Your task to perform on an android device: snooze an email in the gmail app Image 0: 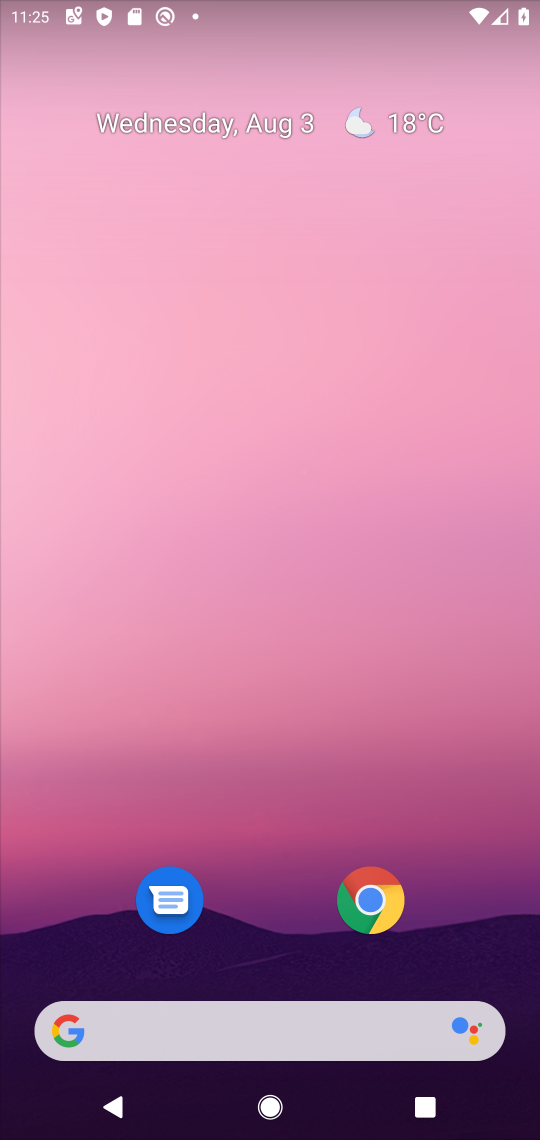
Step 0: press home button
Your task to perform on an android device: snooze an email in the gmail app Image 1: 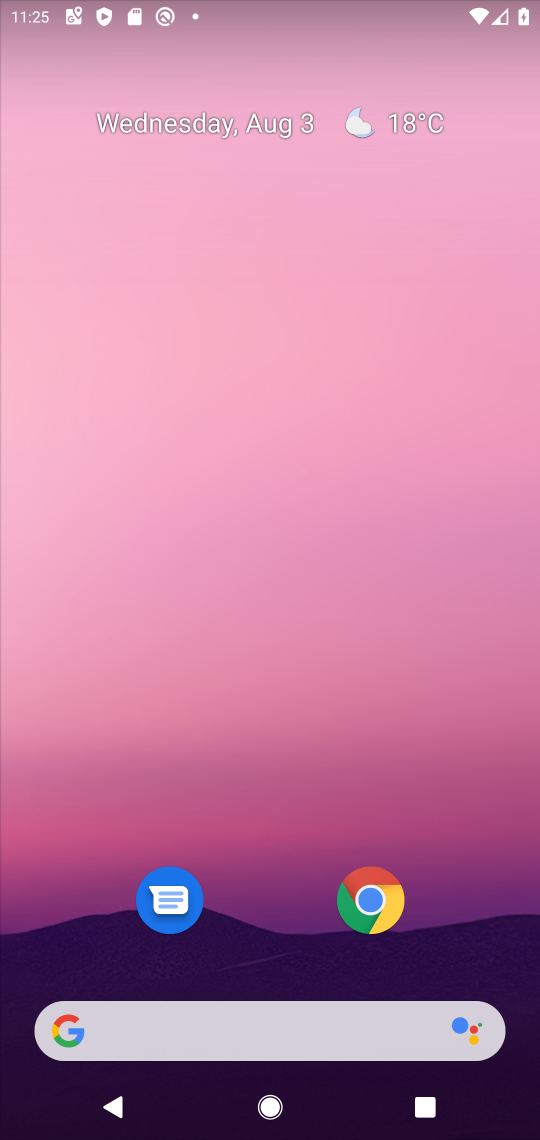
Step 1: drag from (265, 909) to (259, 148)
Your task to perform on an android device: snooze an email in the gmail app Image 2: 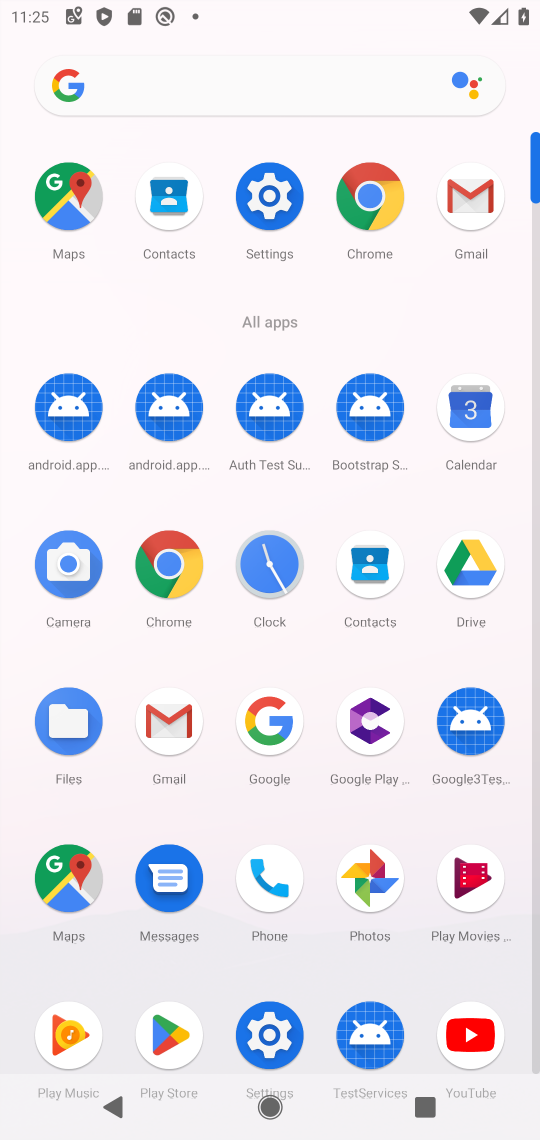
Step 2: click (467, 192)
Your task to perform on an android device: snooze an email in the gmail app Image 3: 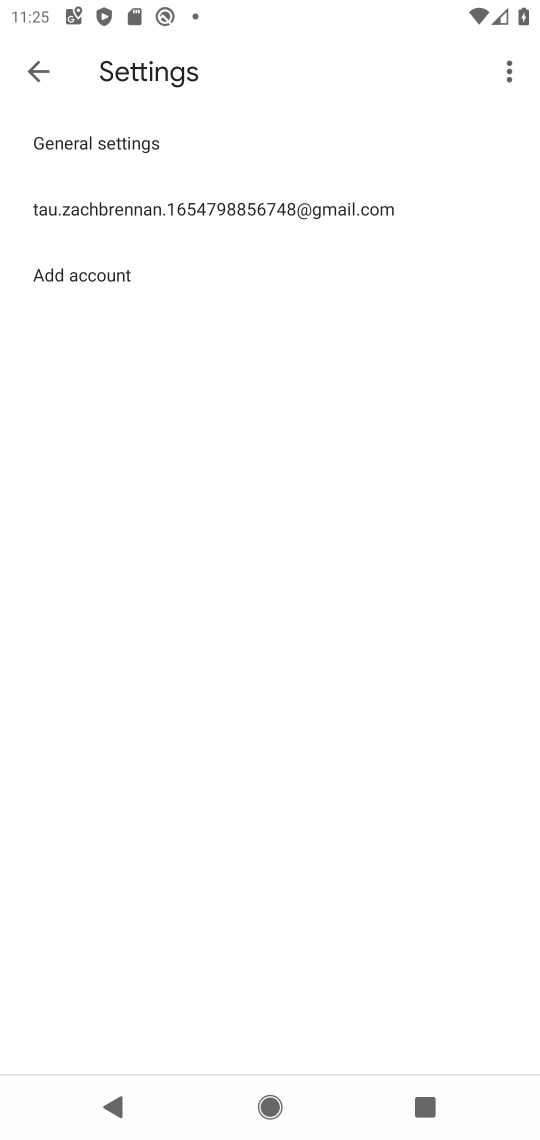
Step 3: click (40, 65)
Your task to perform on an android device: snooze an email in the gmail app Image 4: 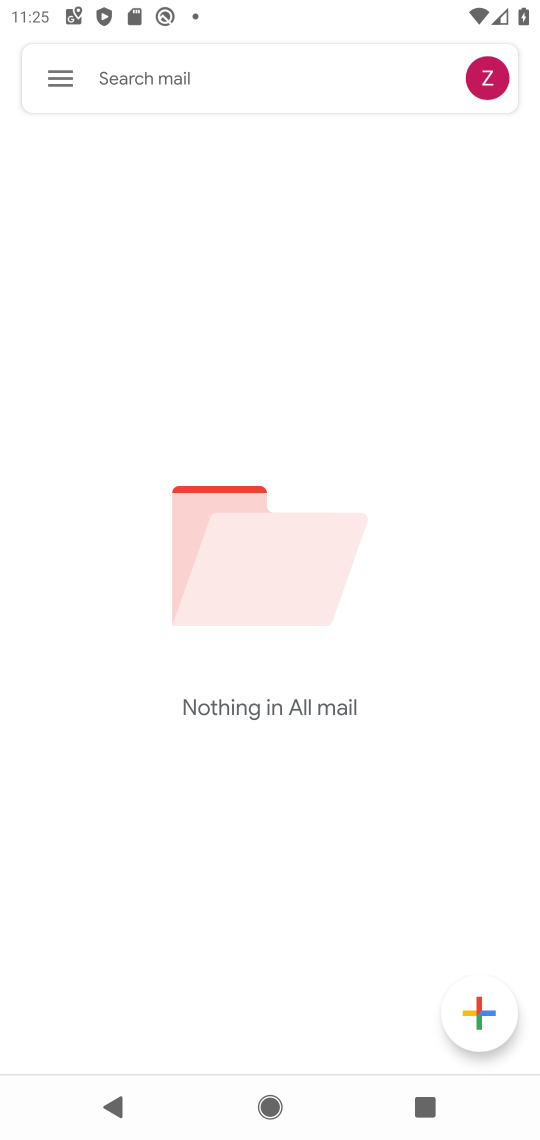
Step 4: click (53, 76)
Your task to perform on an android device: snooze an email in the gmail app Image 5: 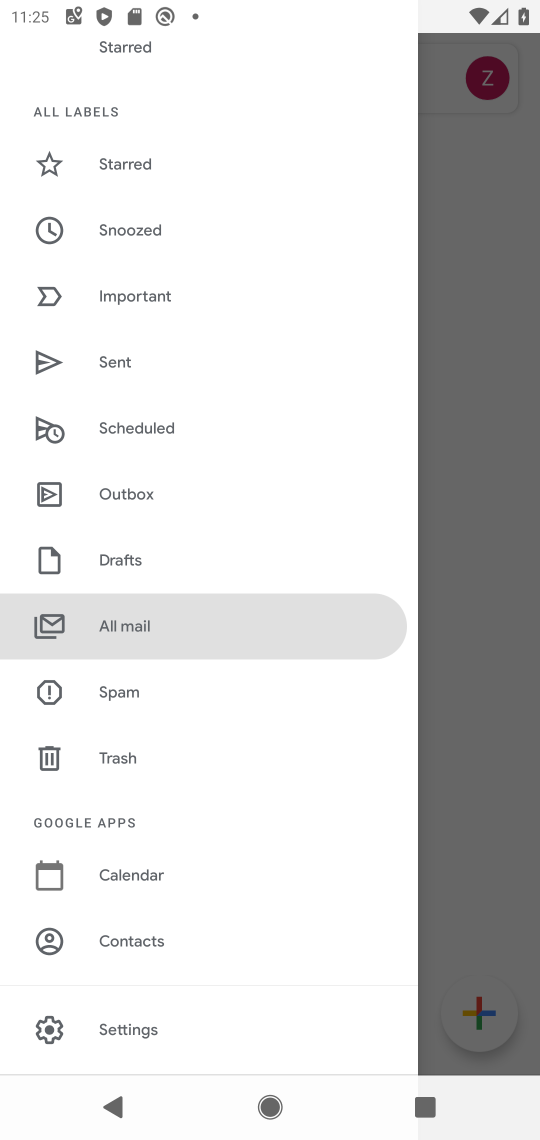
Step 5: click (135, 632)
Your task to perform on an android device: snooze an email in the gmail app Image 6: 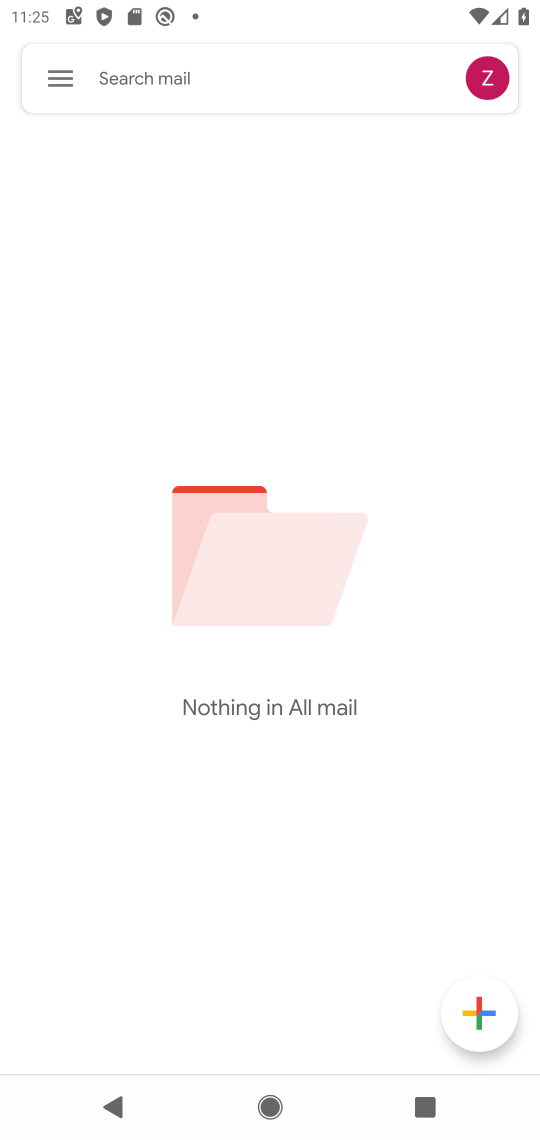
Step 6: task complete